Your task to perform on an android device: check android version Image 0: 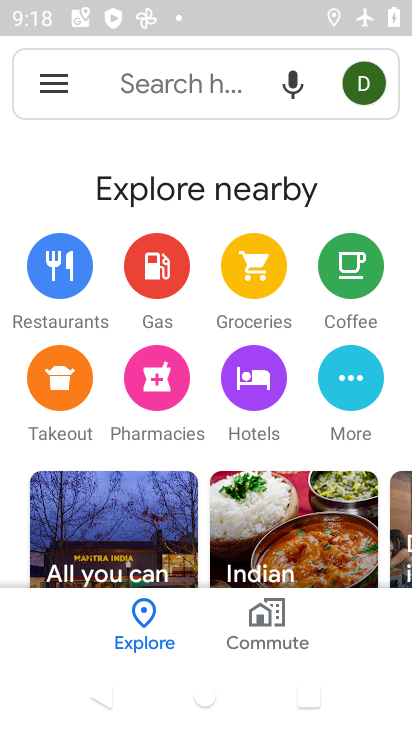
Step 0: drag from (231, 506) to (46, 93)
Your task to perform on an android device: check android version Image 1: 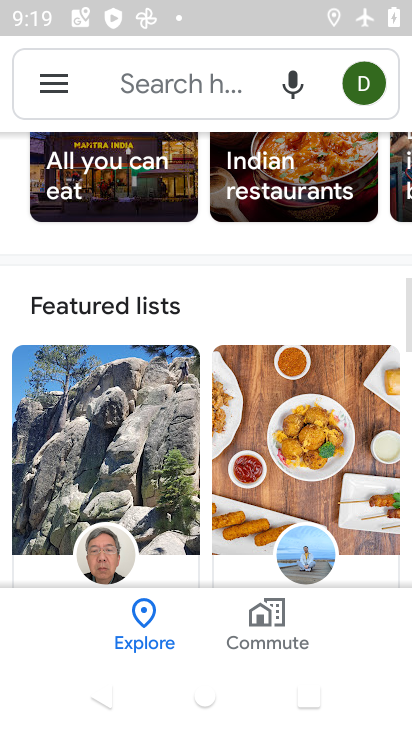
Step 1: drag from (200, 536) to (236, 45)
Your task to perform on an android device: check android version Image 2: 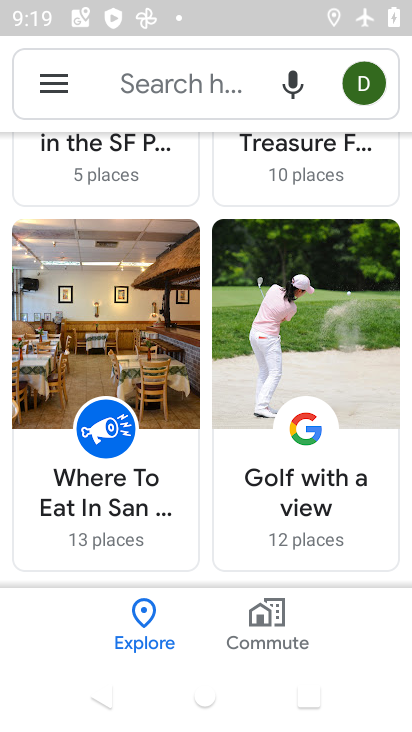
Step 2: press home button
Your task to perform on an android device: check android version Image 3: 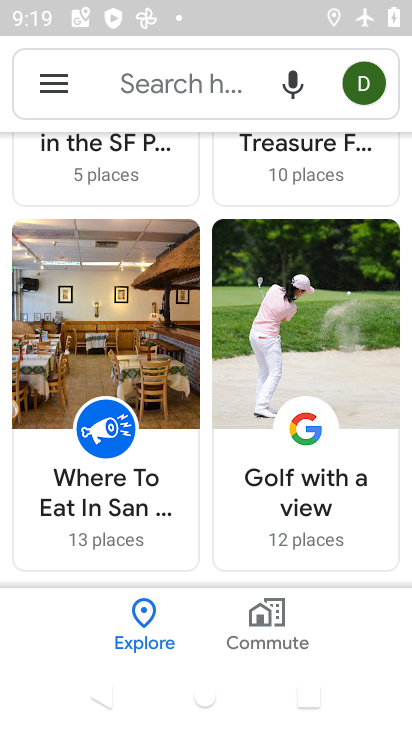
Step 3: drag from (150, 476) to (242, 5)
Your task to perform on an android device: check android version Image 4: 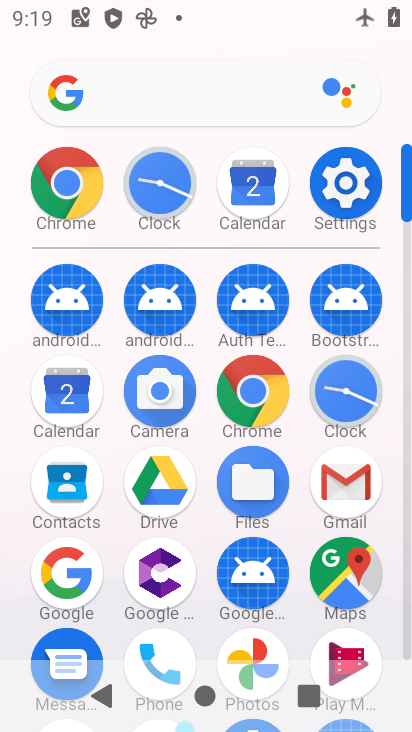
Step 4: drag from (208, 622) to (215, 155)
Your task to perform on an android device: check android version Image 5: 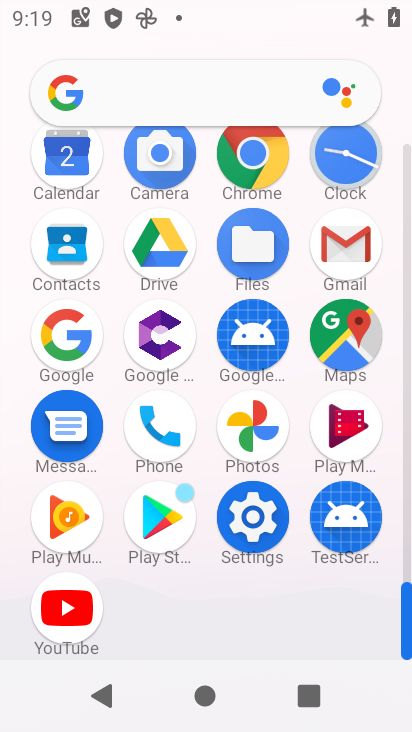
Step 5: click (251, 537)
Your task to perform on an android device: check android version Image 6: 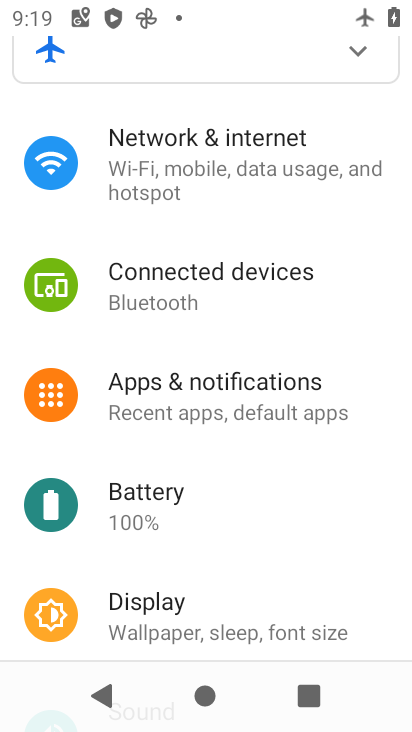
Step 6: drag from (180, 592) to (349, 9)
Your task to perform on an android device: check android version Image 7: 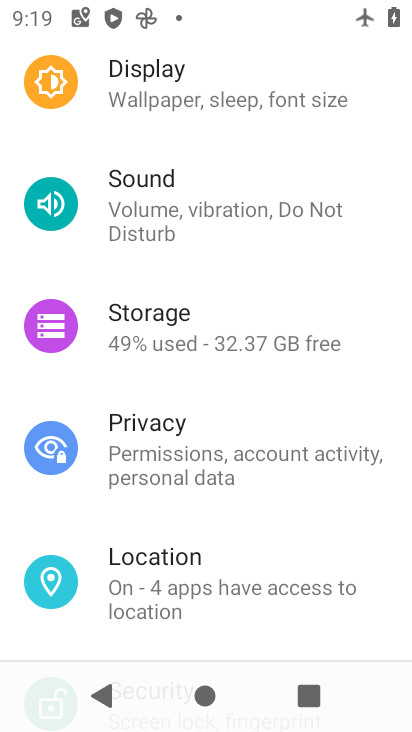
Step 7: drag from (200, 619) to (271, 14)
Your task to perform on an android device: check android version Image 8: 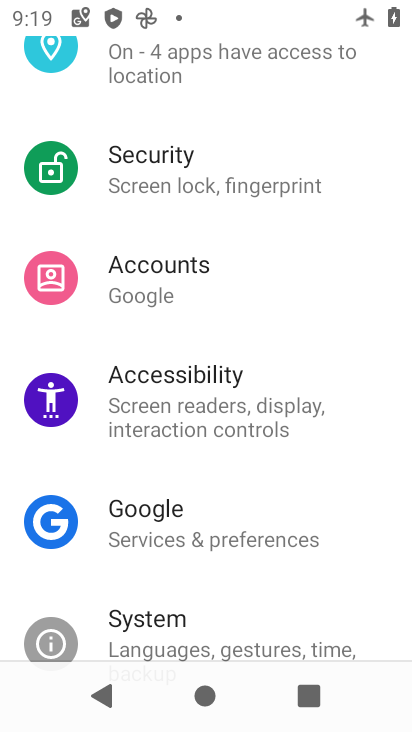
Step 8: drag from (173, 619) to (274, 3)
Your task to perform on an android device: check android version Image 9: 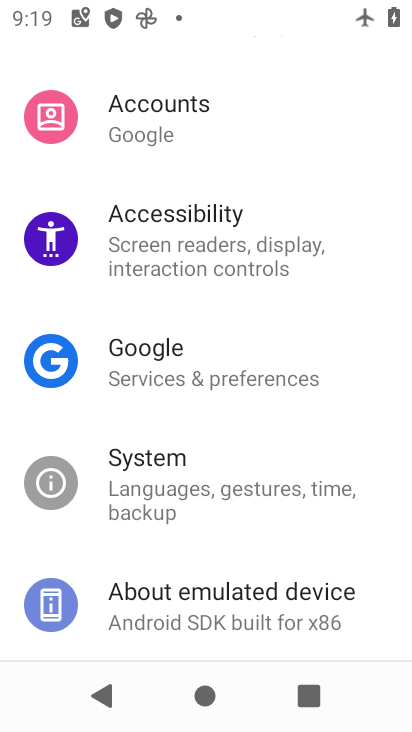
Step 9: click (216, 592)
Your task to perform on an android device: check android version Image 10: 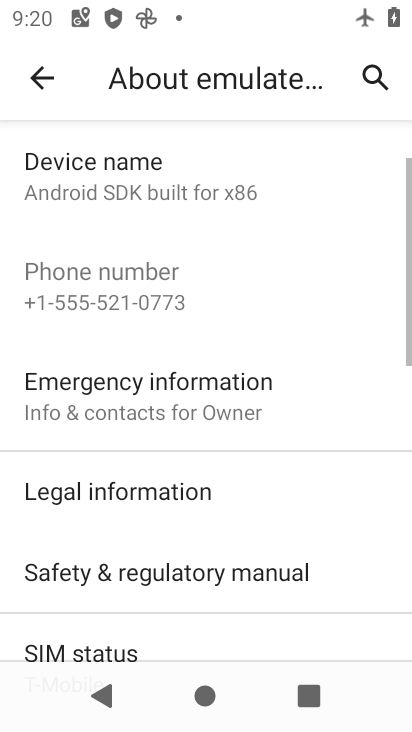
Step 10: drag from (165, 569) to (264, 28)
Your task to perform on an android device: check android version Image 11: 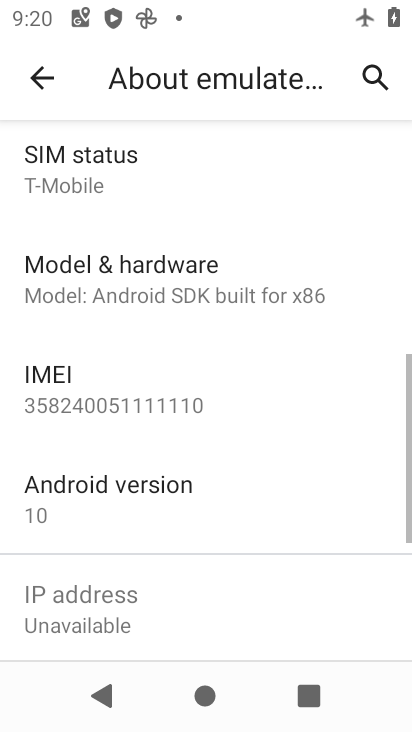
Step 11: drag from (195, 538) to (244, 220)
Your task to perform on an android device: check android version Image 12: 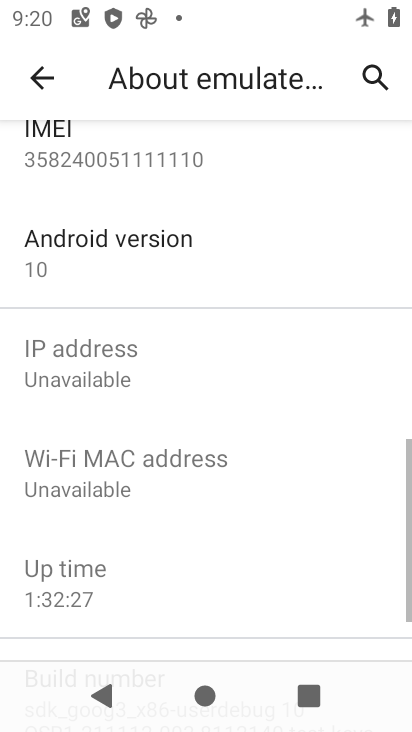
Step 12: click (164, 269)
Your task to perform on an android device: check android version Image 13: 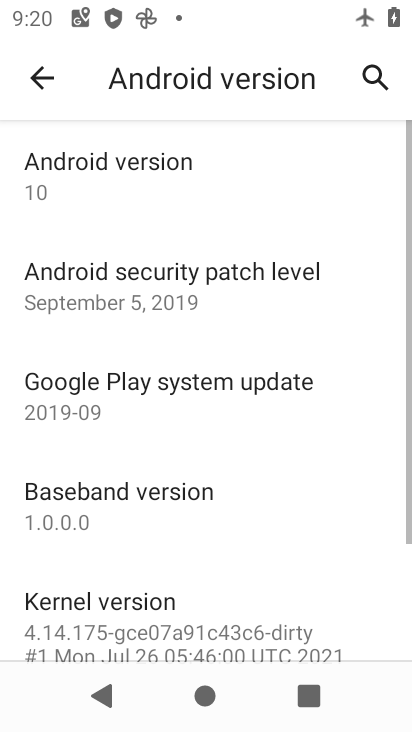
Step 13: task complete